Your task to perform on an android device: clear all cookies in the chrome app Image 0: 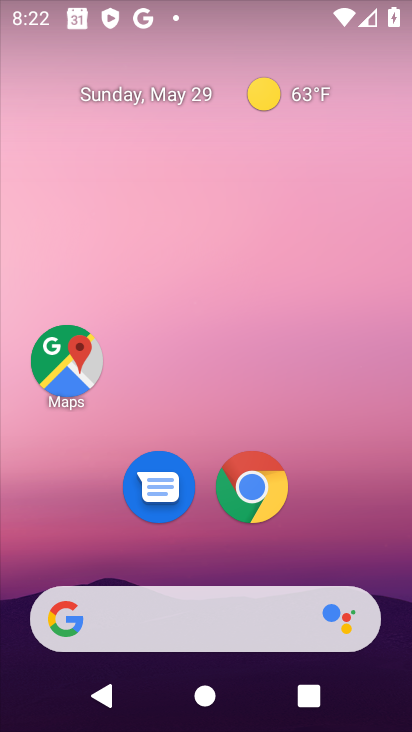
Step 0: click (254, 484)
Your task to perform on an android device: clear all cookies in the chrome app Image 1: 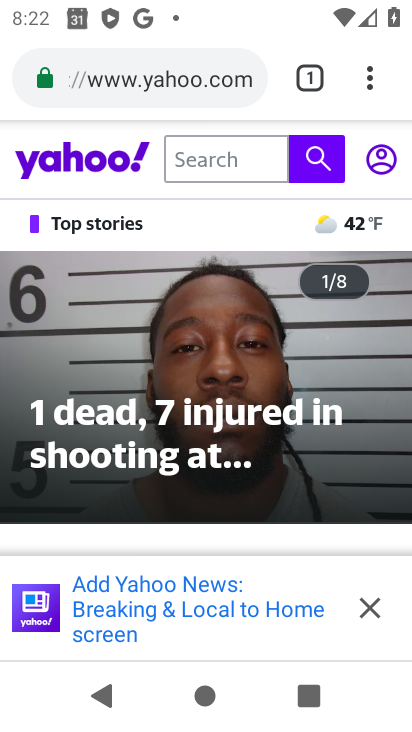
Step 1: click (370, 78)
Your task to perform on an android device: clear all cookies in the chrome app Image 2: 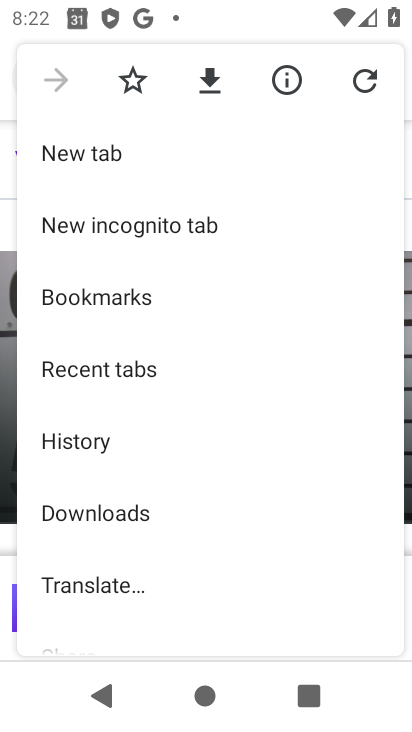
Step 2: drag from (160, 470) to (189, 397)
Your task to perform on an android device: clear all cookies in the chrome app Image 3: 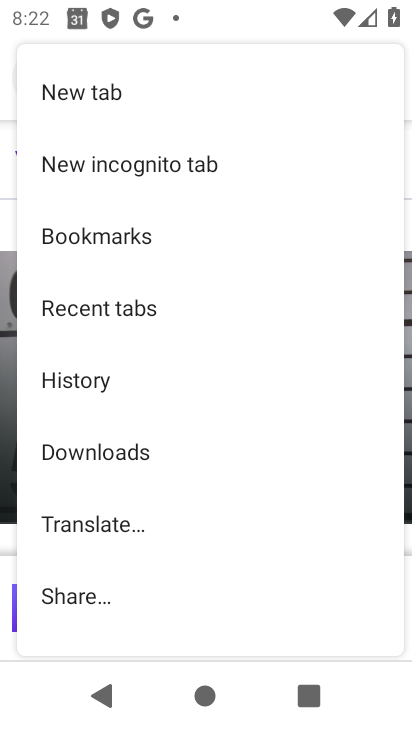
Step 3: drag from (117, 476) to (174, 403)
Your task to perform on an android device: clear all cookies in the chrome app Image 4: 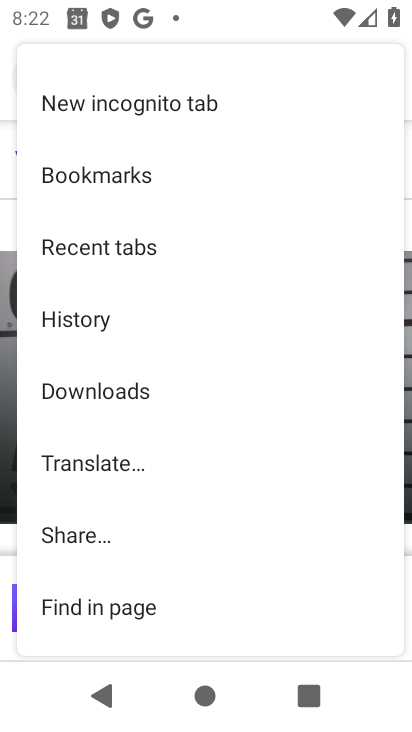
Step 4: drag from (98, 509) to (157, 426)
Your task to perform on an android device: clear all cookies in the chrome app Image 5: 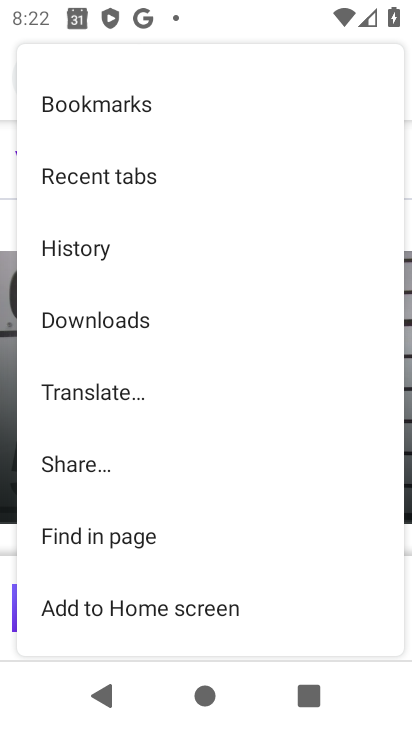
Step 5: drag from (117, 490) to (183, 406)
Your task to perform on an android device: clear all cookies in the chrome app Image 6: 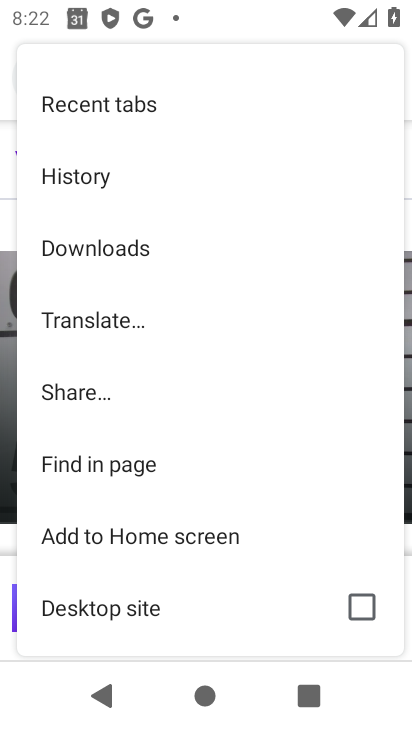
Step 6: drag from (122, 489) to (180, 403)
Your task to perform on an android device: clear all cookies in the chrome app Image 7: 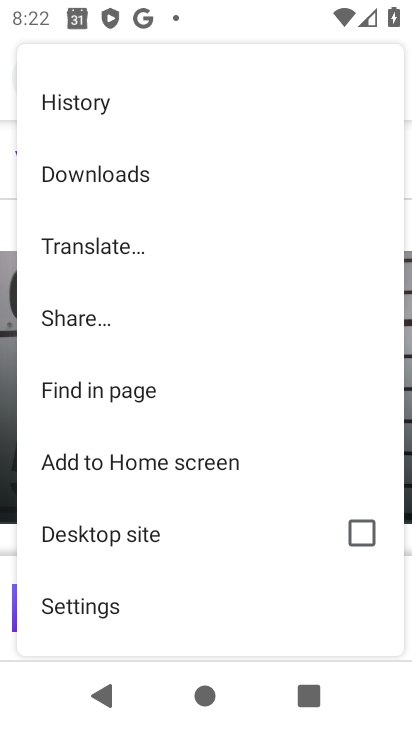
Step 7: drag from (108, 507) to (196, 411)
Your task to perform on an android device: clear all cookies in the chrome app Image 8: 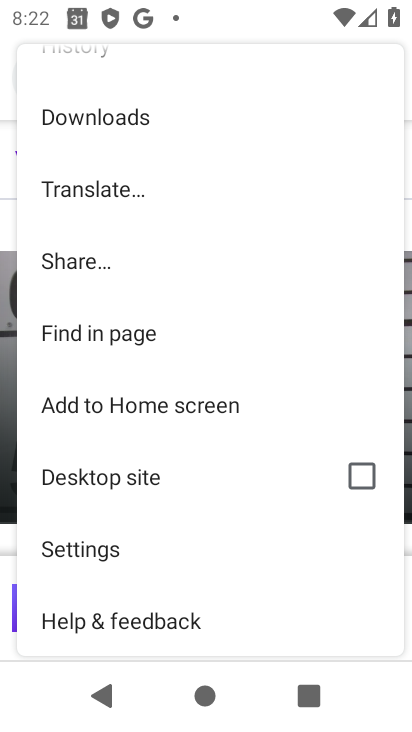
Step 8: click (93, 545)
Your task to perform on an android device: clear all cookies in the chrome app Image 9: 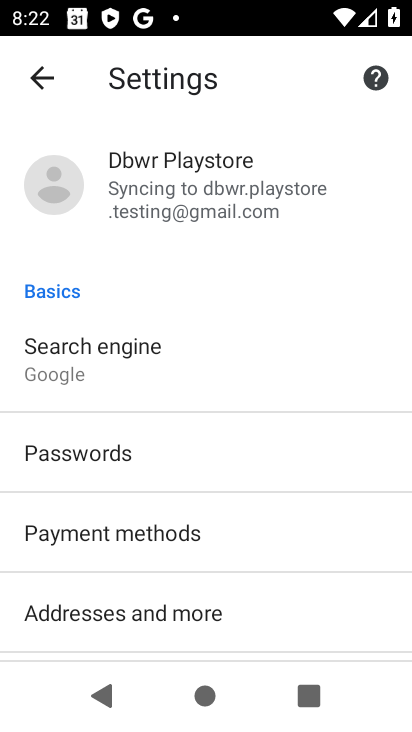
Step 9: drag from (116, 566) to (187, 455)
Your task to perform on an android device: clear all cookies in the chrome app Image 10: 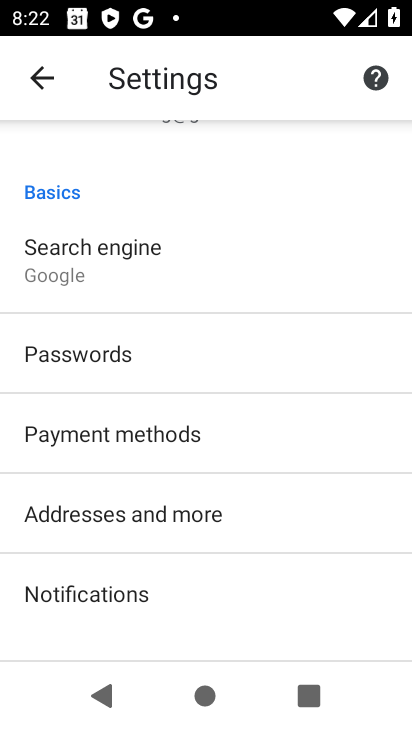
Step 10: drag from (122, 568) to (202, 466)
Your task to perform on an android device: clear all cookies in the chrome app Image 11: 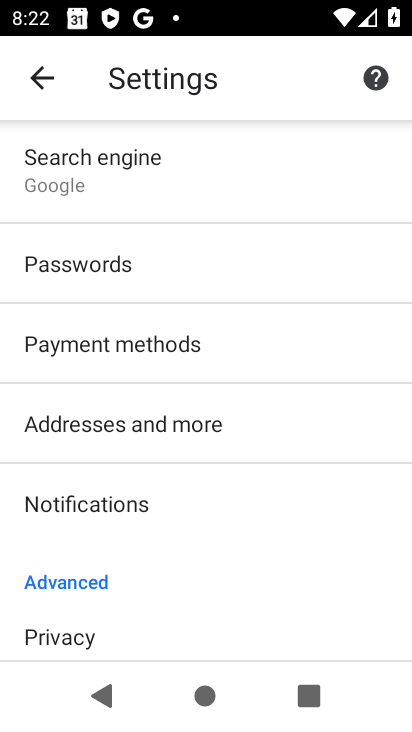
Step 11: drag from (122, 532) to (214, 433)
Your task to perform on an android device: clear all cookies in the chrome app Image 12: 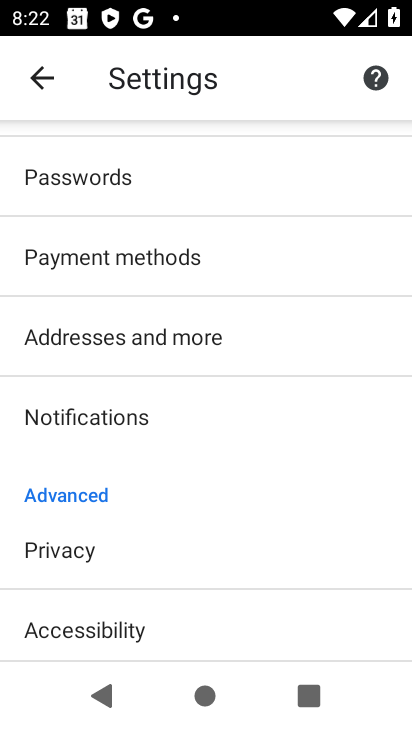
Step 12: click (65, 550)
Your task to perform on an android device: clear all cookies in the chrome app Image 13: 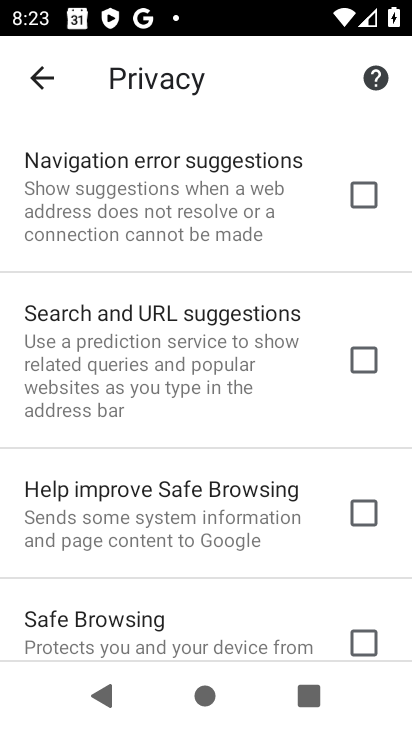
Step 13: drag from (202, 612) to (263, 477)
Your task to perform on an android device: clear all cookies in the chrome app Image 14: 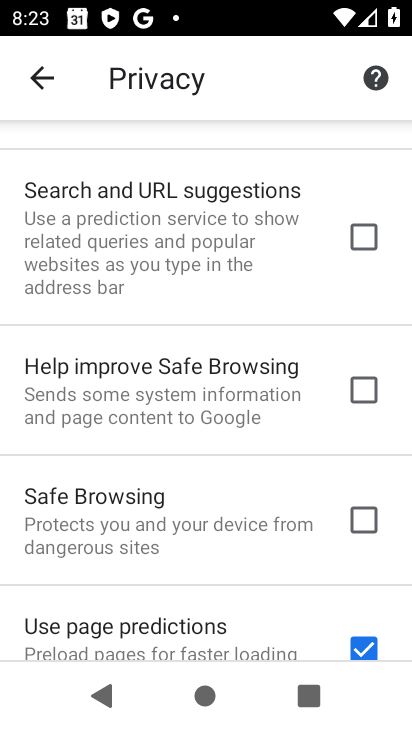
Step 14: drag from (128, 599) to (236, 465)
Your task to perform on an android device: clear all cookies in the chrome app Image 15: 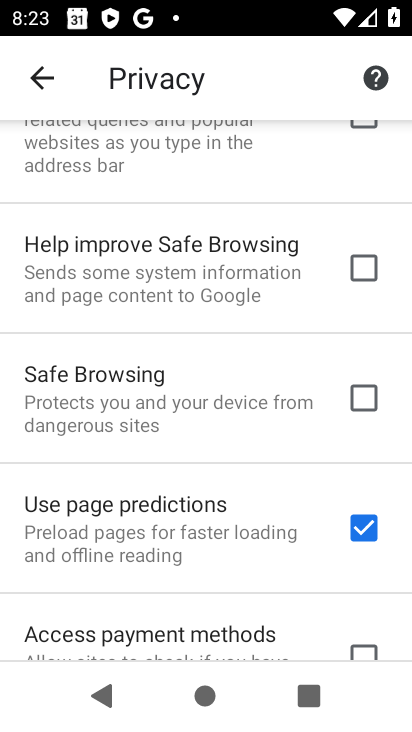
Step 15: drag from (138, 604) to (183, 434)
Your task to perform on an android device: clear all cookies in the chrome app Image 16: 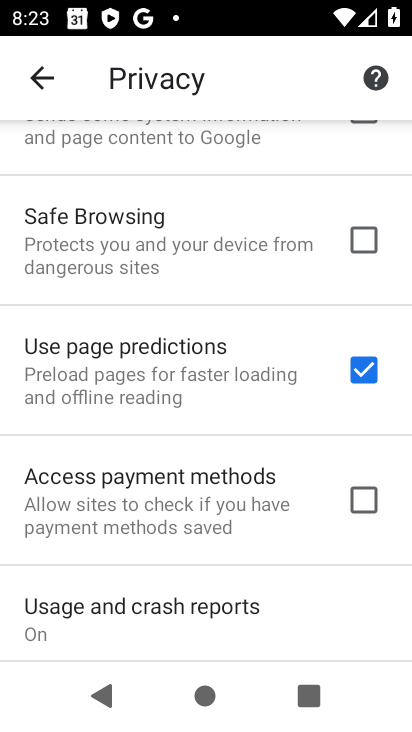
Step 16: drag from (130, 588) to (200, 429)
Your task to perform on an android device: clear all cookies in the chrome app Image 17: 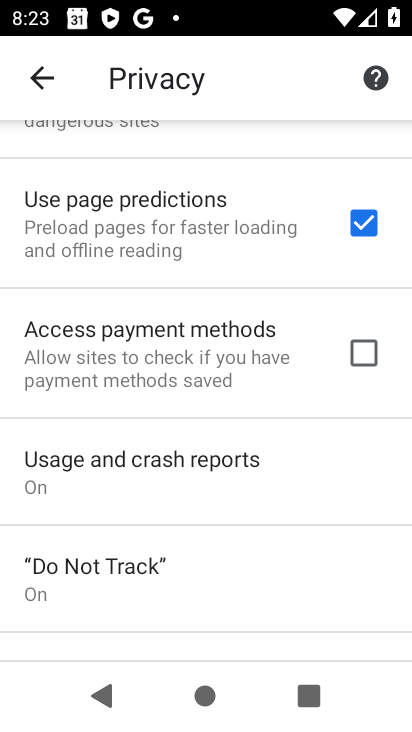
Step 17: drag from (169, 605) to (262, 425)
Your task to perform on an android device: clear all cookies in the chrome app Image 18: 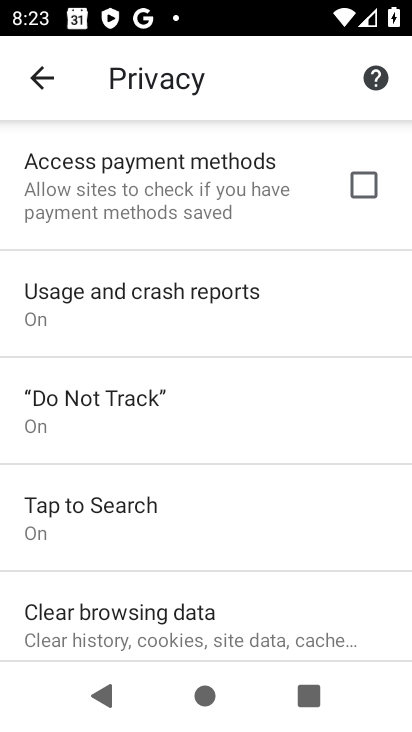
Step 18: drag from (165, 532) to (206, 404)
Your task to perform on an android device: clear all cookies in the chrome app Image 19: 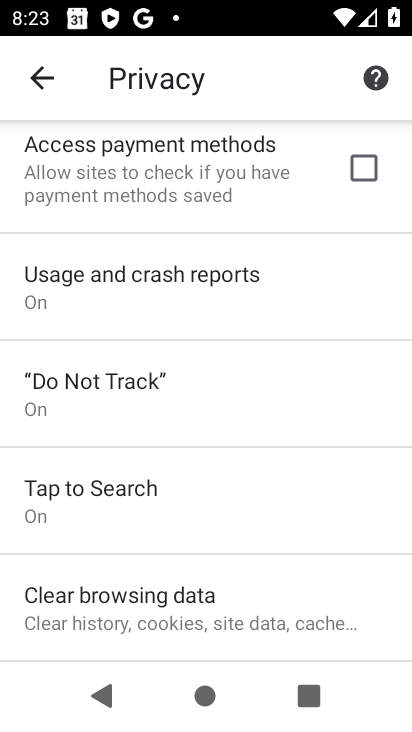
Step 19: click (144, 607)
Your task to perform on an android device: clear all cookies in the chrome app Image 20: 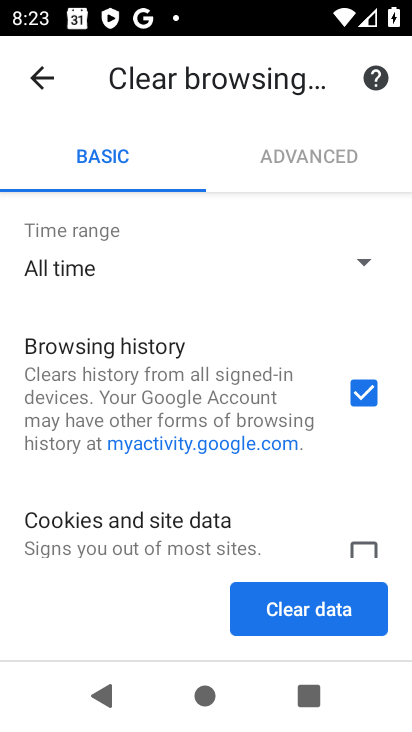
Step 20: drag from (289, 516) to (299, 463)
Your task to perform on an android device: clear all cookies in the chrome app Image 21: 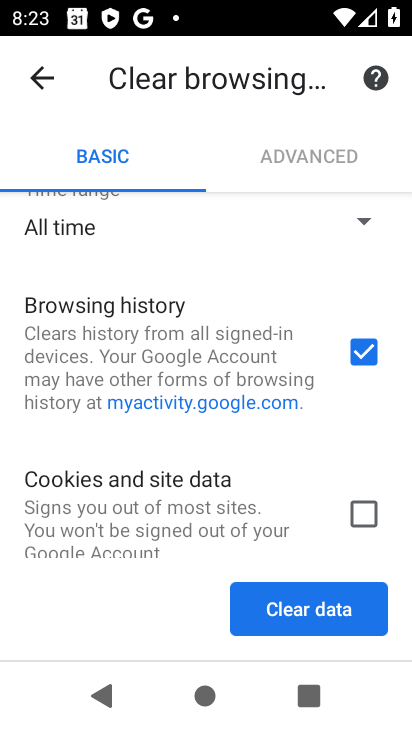
Step 21: click (351, 519)
Your task to perform on an android device: clear all cookies in the chrome app Image 22: 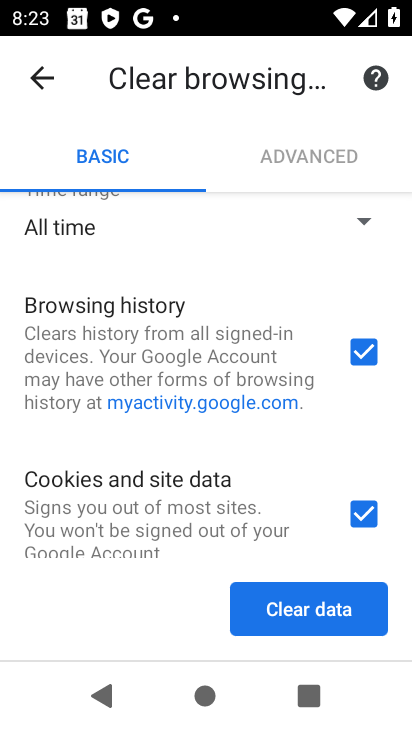
Step 22: click (313, 594)
Your task to perform on an android device: clear all cookies in the chrome app Image 23: 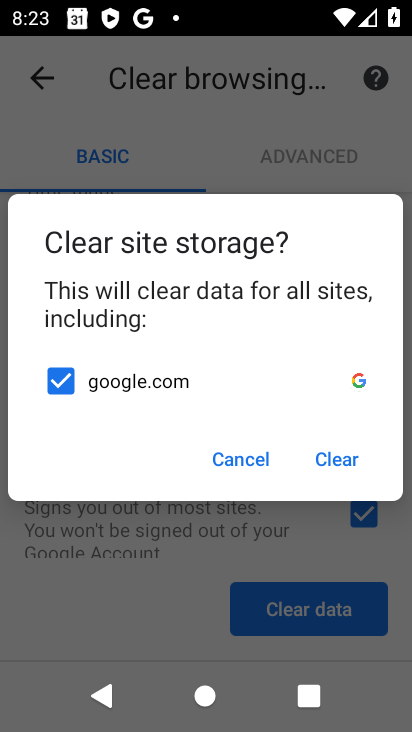
Step 23: click (367, 459)
Your task to perform on an android device: clear all cookies in the chrome app Image 24: 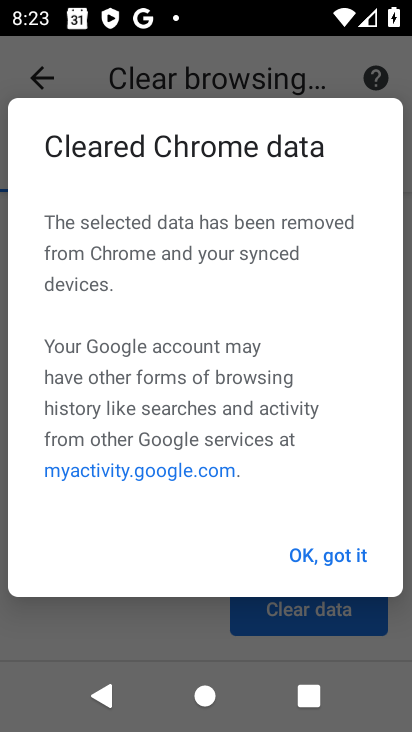
Step 24: click (330, 557)
Your task to perform on an android device: clear all cookies in the chrome app Image 25: 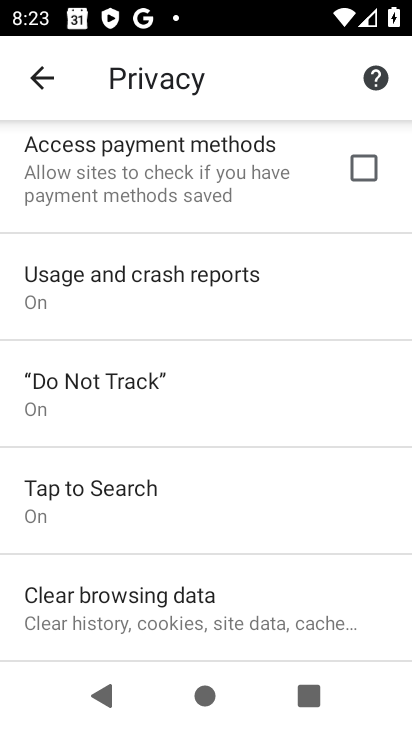
Step 25: task complete